Your task to perform on an android device: toggle javascript in the chrome app Image 0: 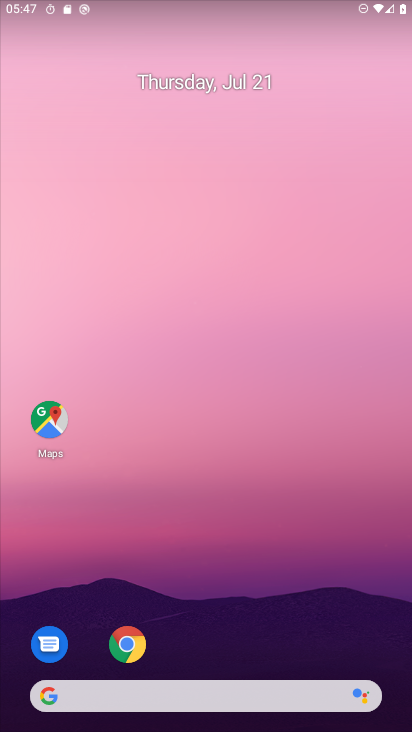
Step 0: click (129, 639)
Your task to perform on an android device: toggle javascript in the chrome app Image 1: 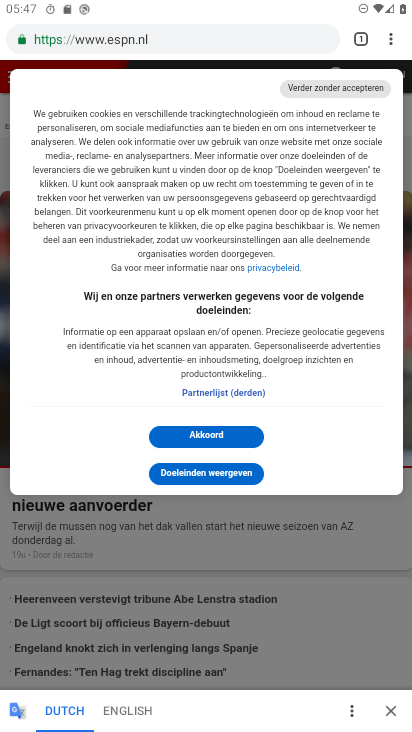
Step 1: click (388, 34)
Your task to perform on an android device: toggle javascript in the chrome app Image 2: 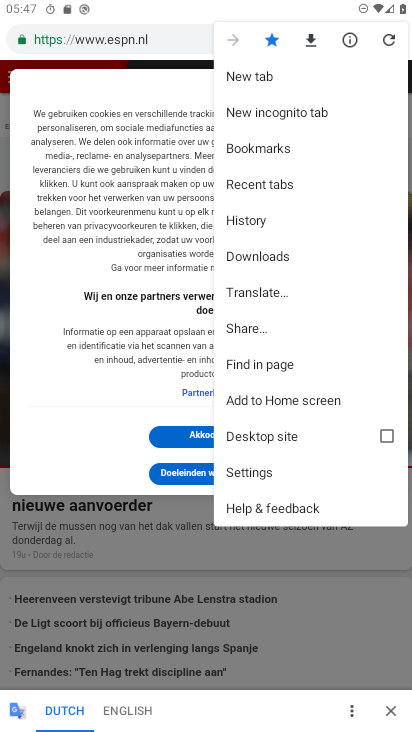
Step 2: click (248, 466)
Your task to perform on an android device: toggle javascript in the chrome app Image 3: 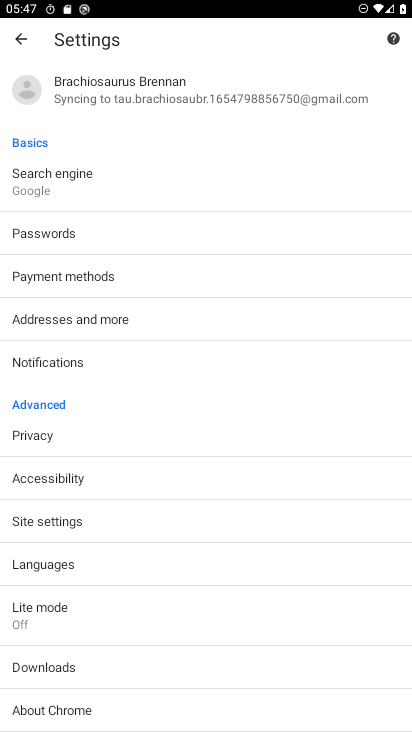
Step 3: click (45, 523)
Your task to perform on an android device: toggle javascript in the chrome app Image 4: 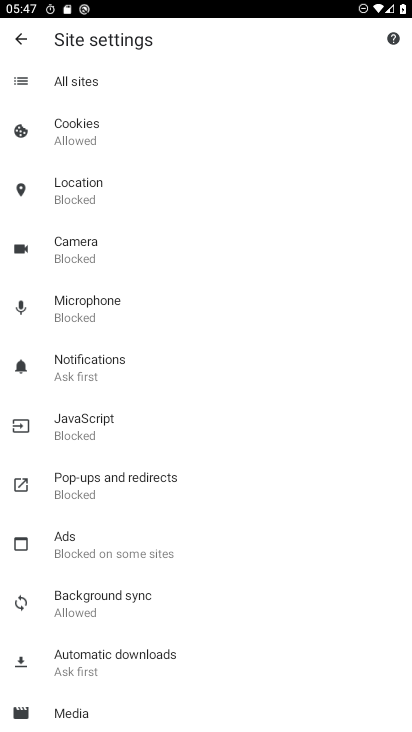
Step 4: click (73, 430)
Your task to perform on an android device: toggle javascript in the chrome app Image 5: 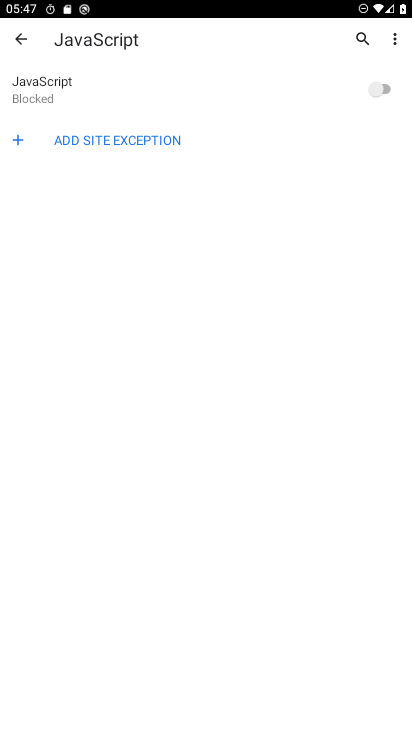
Step 5: click (386, 81)
Your task to perform on an android device: toggle javascript in the chrome app Image 6: 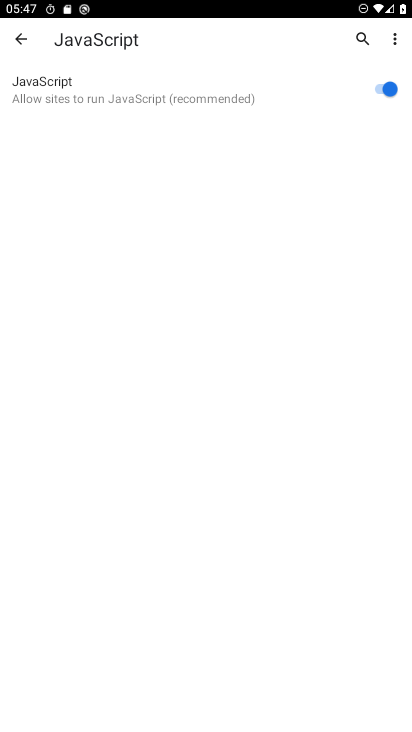
Step 6: task complete